Your task to perform on an android device: Open the calendar and show me this week's events? Image 0: 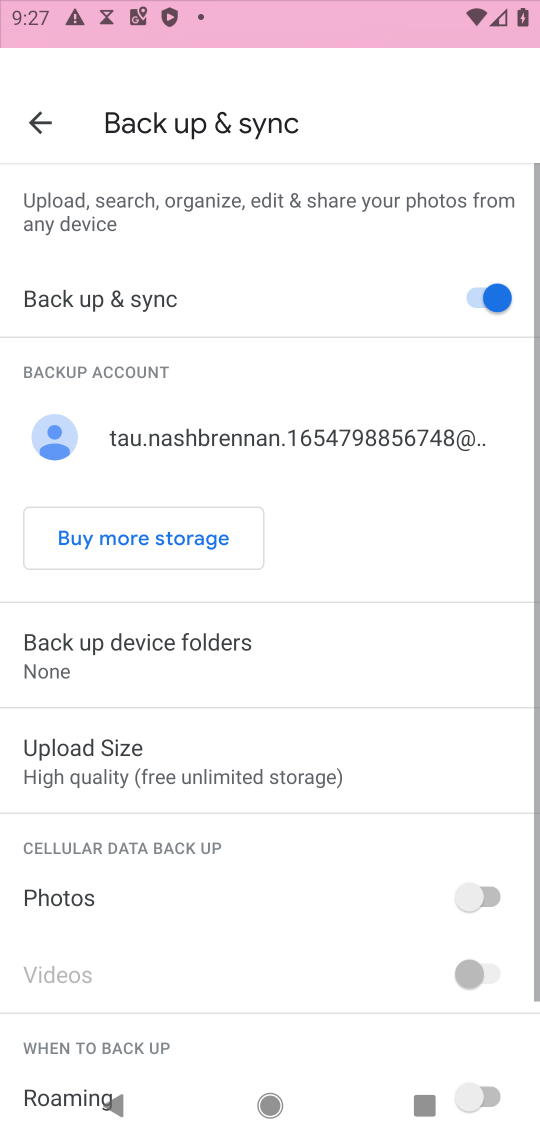
Step 0: press home button
Your task to perform on an android device: Open the calendar and show me this week's events? Image 1: 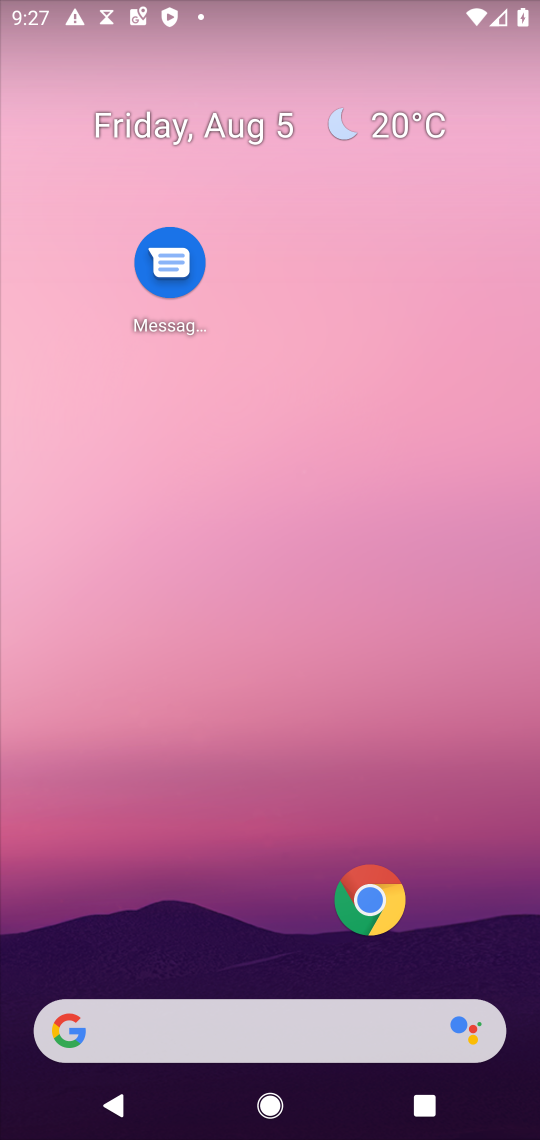
Step 1: press home button
Your task to perform on an android device: Open the calendar and show me this week's events? Image 2: 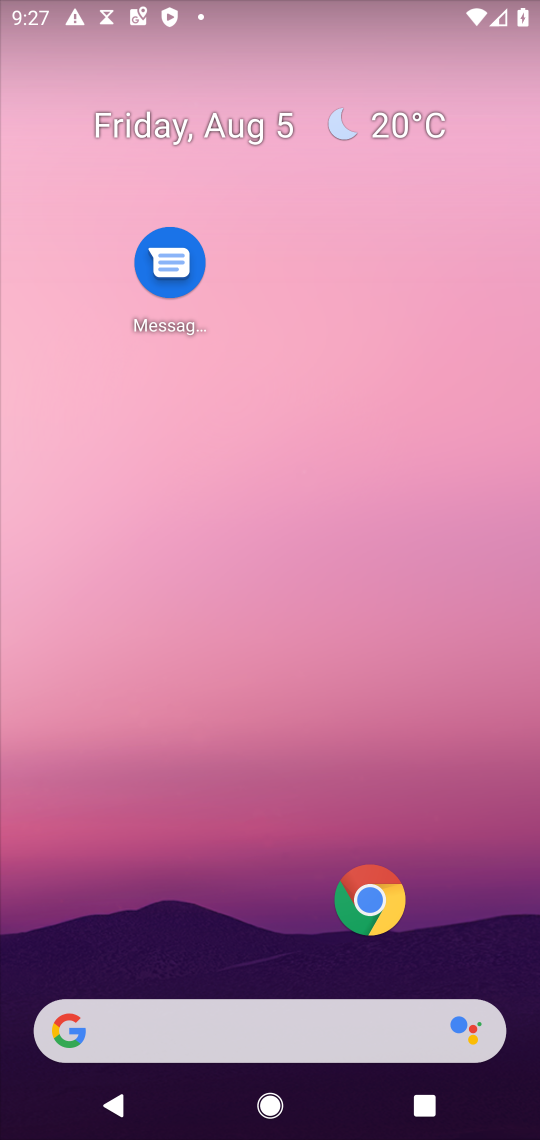
Step 2: drag from (194, 1001) to (229, 214)
Your task to perform on an android device: Open the calendar and show me this week's events? Image 3: 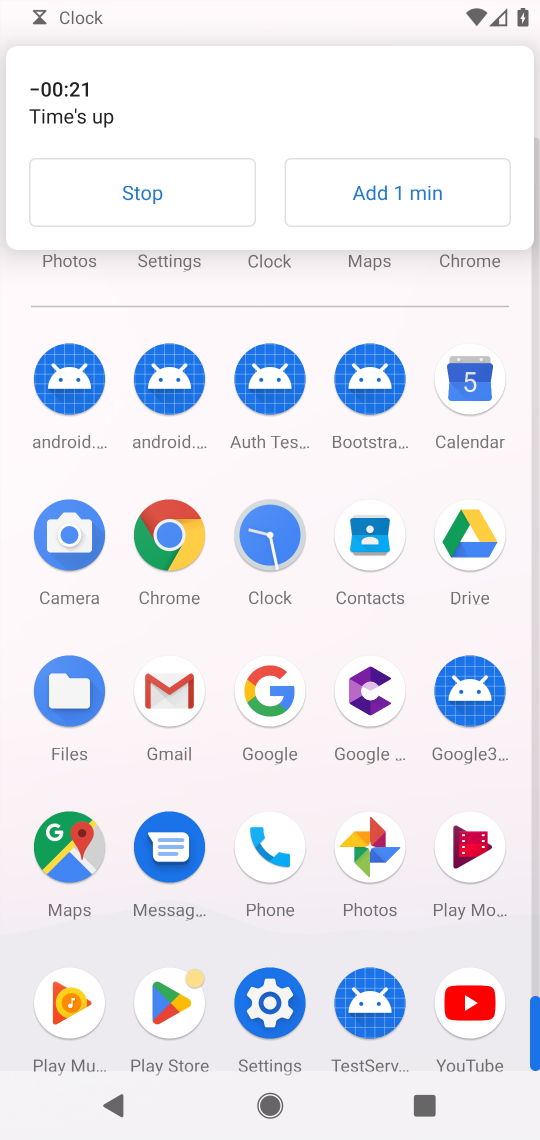
Step 3: click (60, 212)
Your task to perform on an android device: Open the calendar and show me this week's events? Image 4: 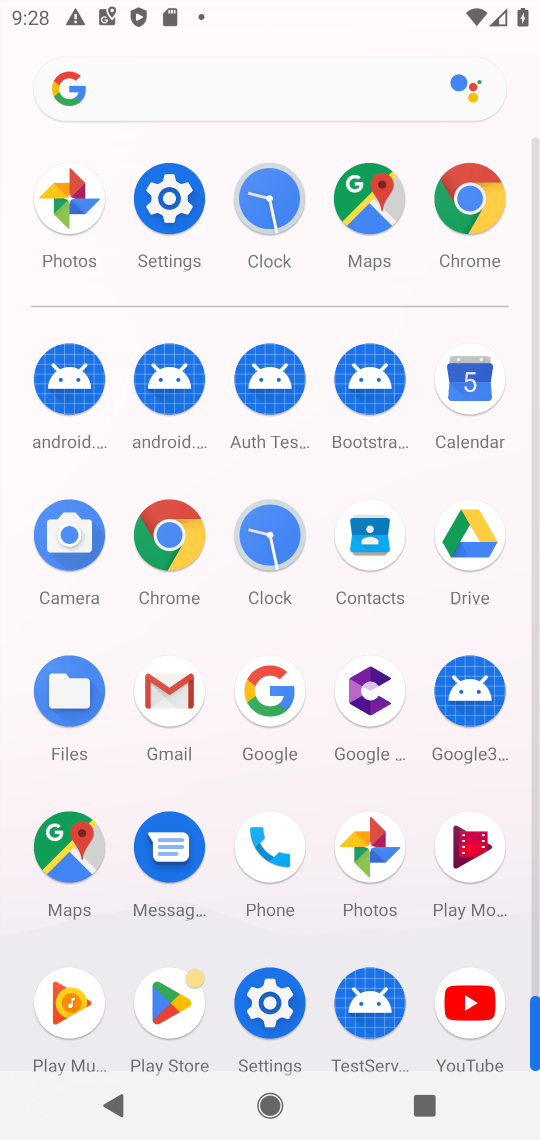
Step 4: click (475, 388)
Your task to perform on an android device: Open the calendar and show me this week's events? Image 5: 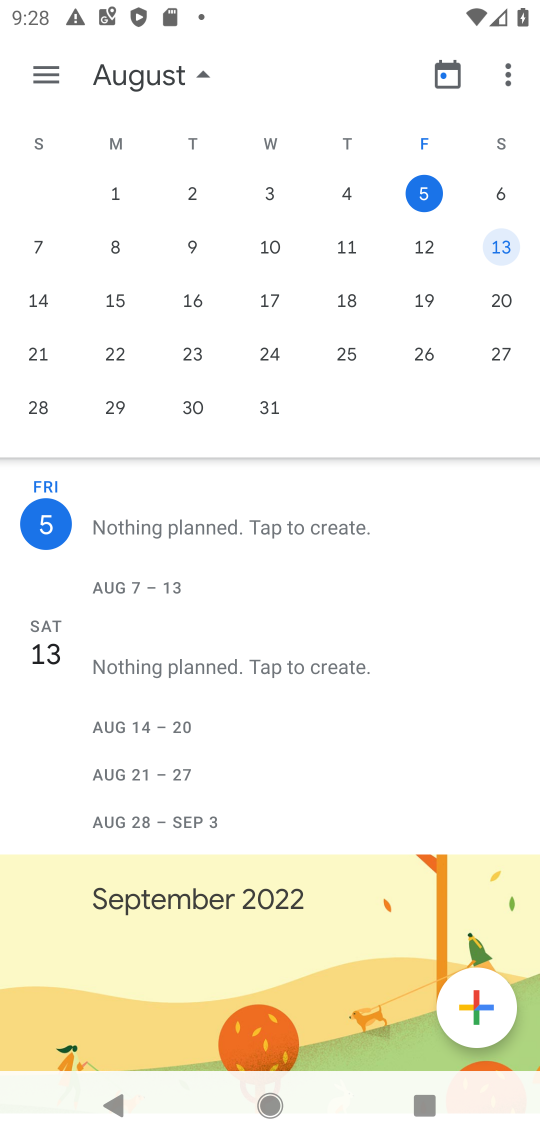
Step 5: task complete